Your task to perform on an android device: open chrome and create a bookmark for the current page Image 0: 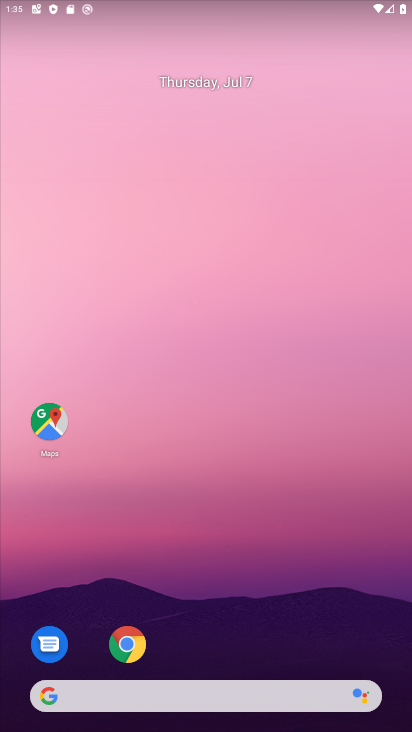
Step 0: click (129, 643)
Your task to perform on an android device: open chrome and create a bookmark for the current page Image 1: 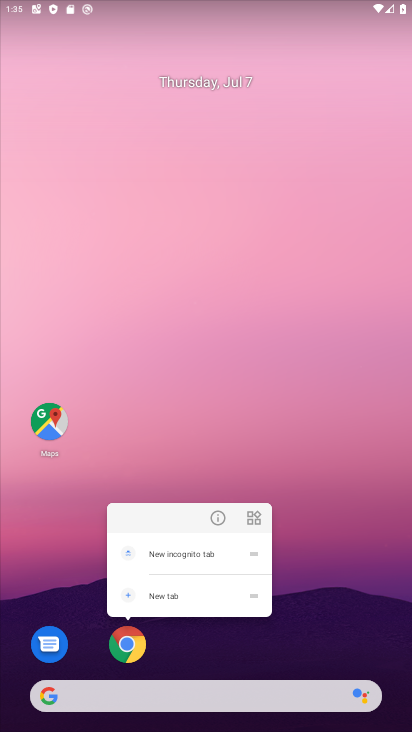
Step 1: click (129, 643)
Your task to perform on an android device: open chrome and create a bookmark for the current page Image 2: 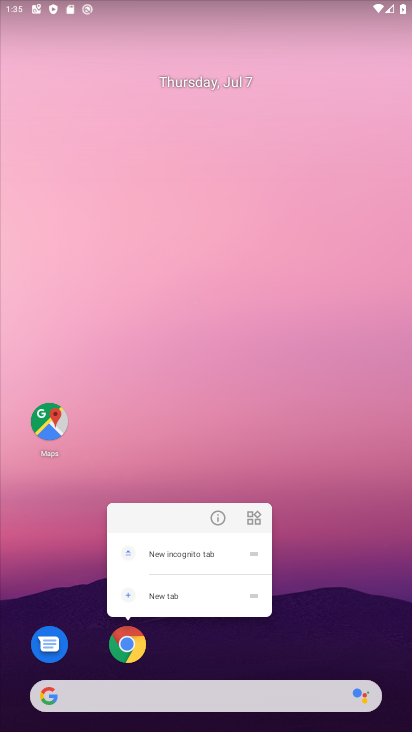
Step 2: click (129, 643)
Your task to perform on an android device: open chrome and create a bookmark for the current page Image 3: 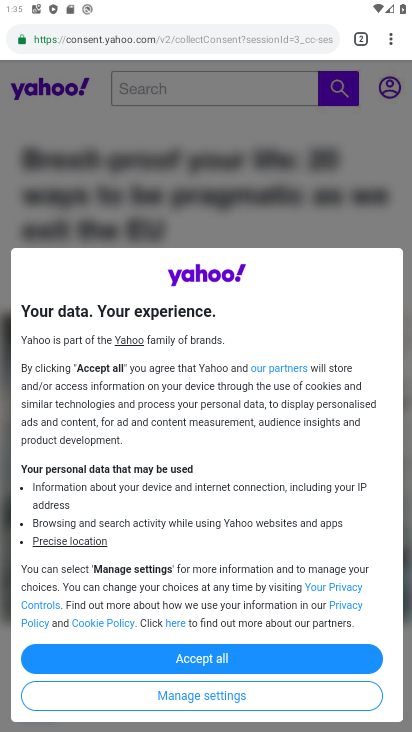
Step 3: task complete